Your task to perform on an android device: Open Chrome and go to settings Image 0: 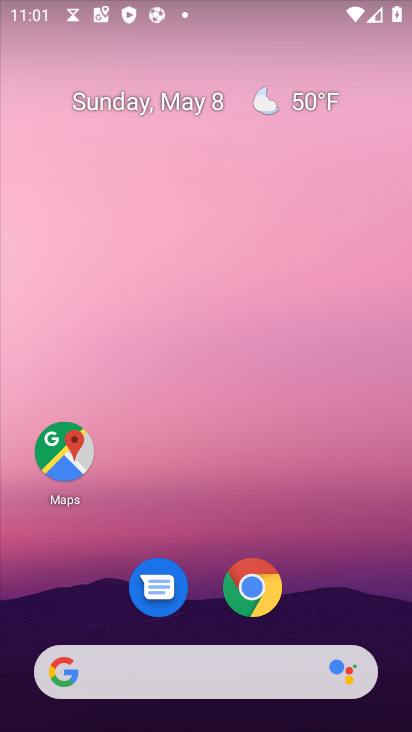
Step 0: click (253, 587)
Your task to perform on an android device: Open Chrome and go to settings Image 1: 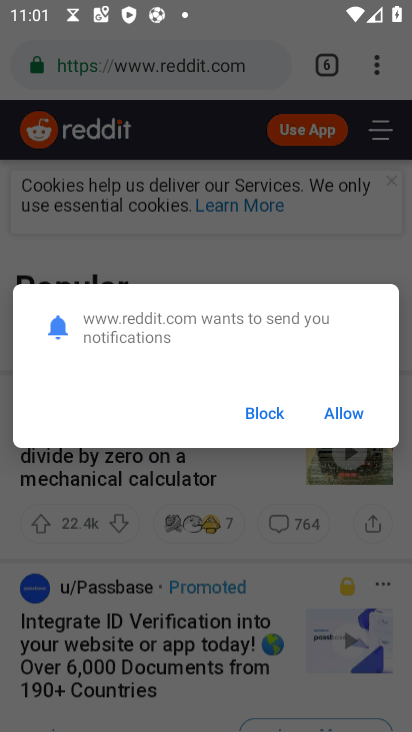
Step 1: click (381, 64)
Your task to perform on an android device: Open Chrome and go to settings Image 2: 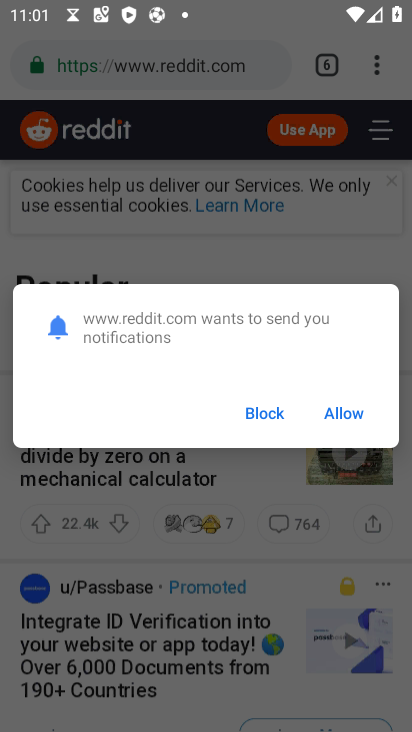
Step 2: click (271, 411)
Your task to perform on an android device: Open Chrome and go to settings Image 3: 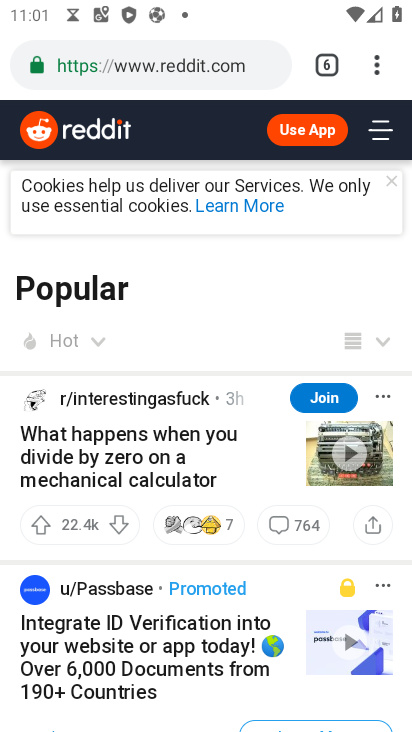
Step 3: task complete